Your task to perform on an android device: Open Yahoo.com Image 0: 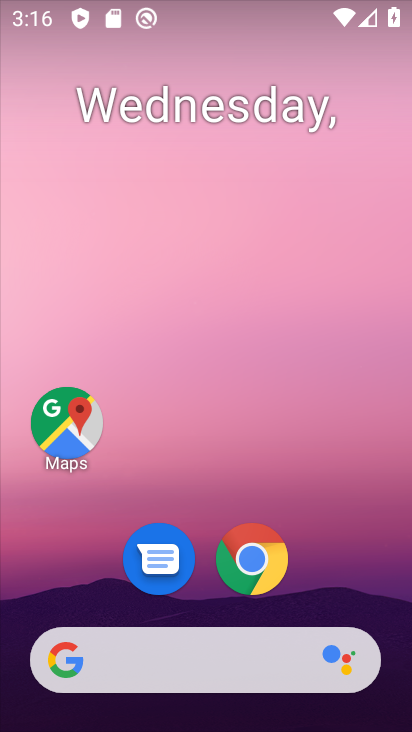
Step 0: click (240, 571)
Your task to perform on an android device: Open Yahoo.com Image 1: 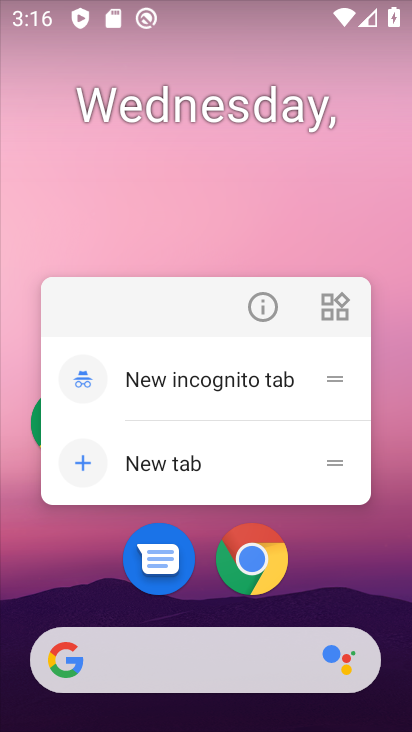
Step 1: click (265, 563)
Your task to perform on an android device: Open Yahoo.com Image 2: 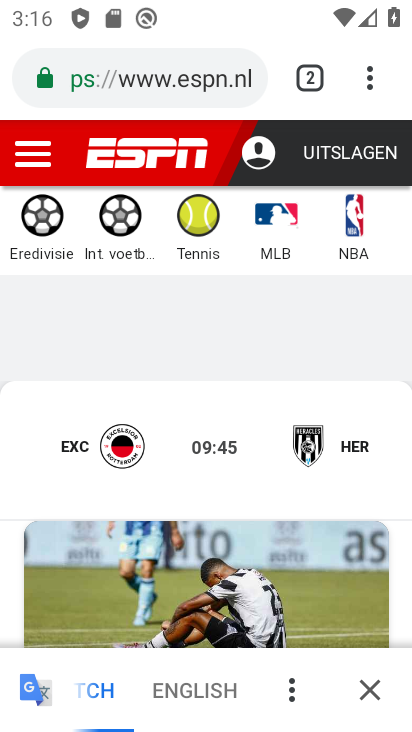
Step 2: drag from (362, 66) to (329, 126)
Your task to perform on an android device: Open Yahoo.com Image 3: 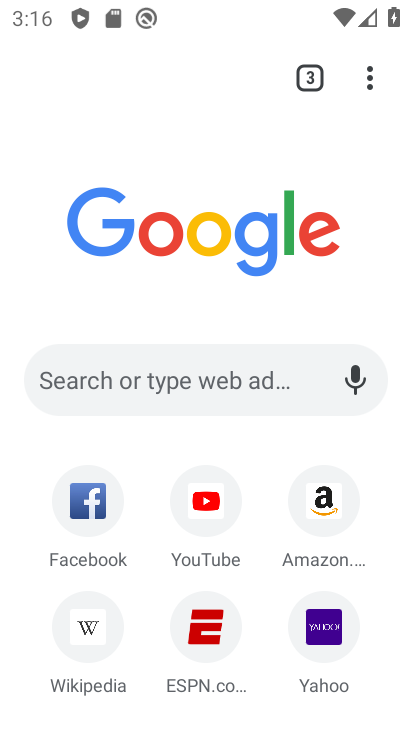
Step 3: click (311, 622)
Your task to perform on an android device: Open Yahoo.com Image 4: 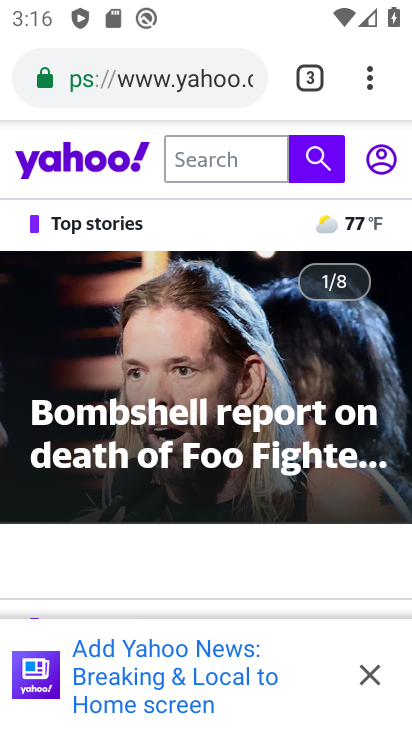
Step 4: click (374, 680)
Your task to perform on an android device: Open Yahoo.com Image 5: 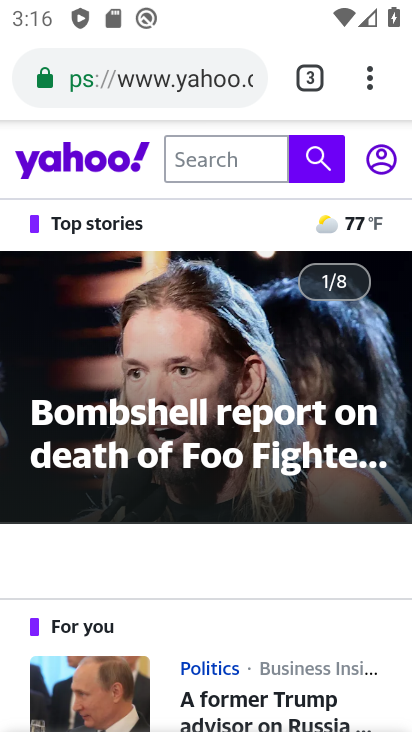
Step 5: task complete